Your task to perform on an android device: Open accessibility settings Image 0: 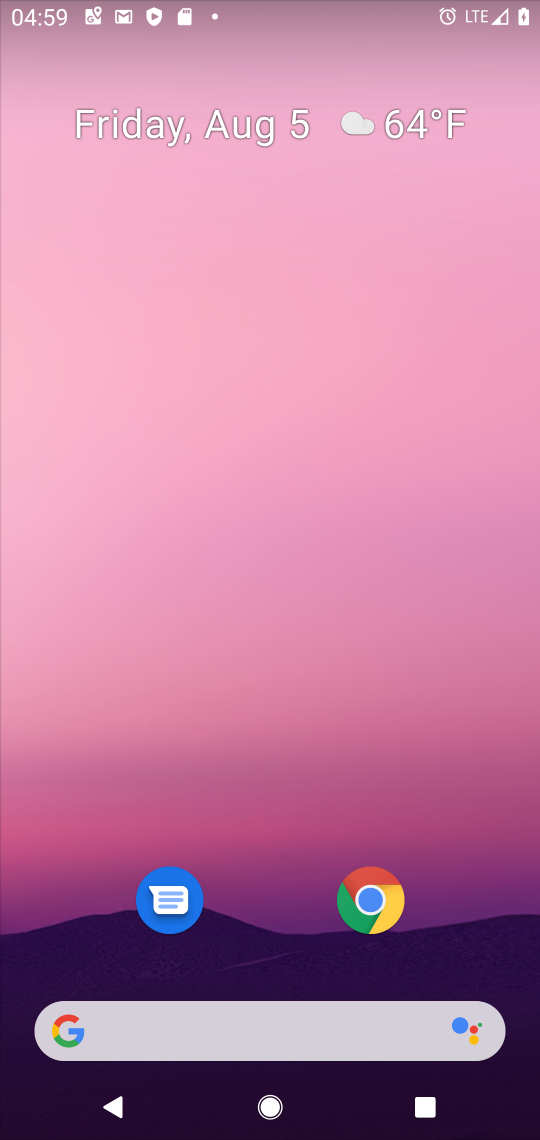
Step 0: drag from (326, 836) to (354, 100)
Your task to perform on an android device: Open accessibility settings Image 1: 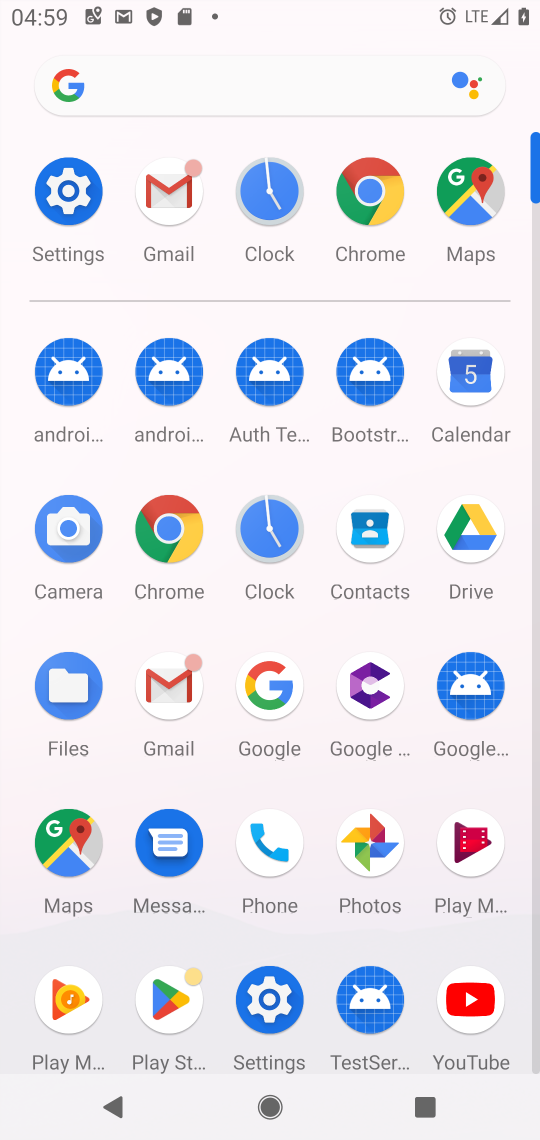
Step 1: click (78, 187)
Your task to perform on an android device: Open accessibility settings Image 2: 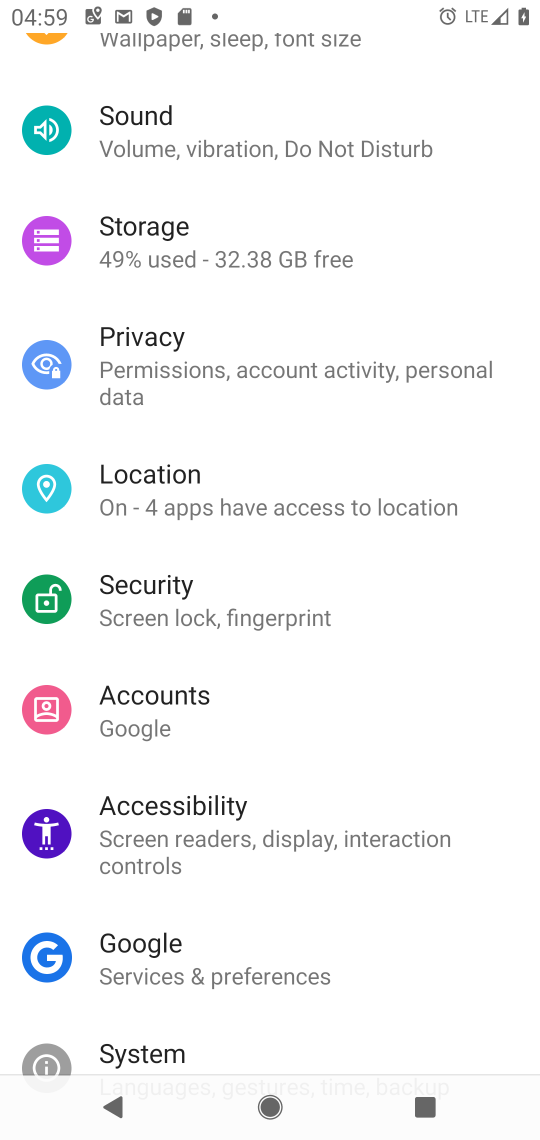
Step 2: click (243, 254)
Your task to perform on an android device: Open accessibility settings Image 3: 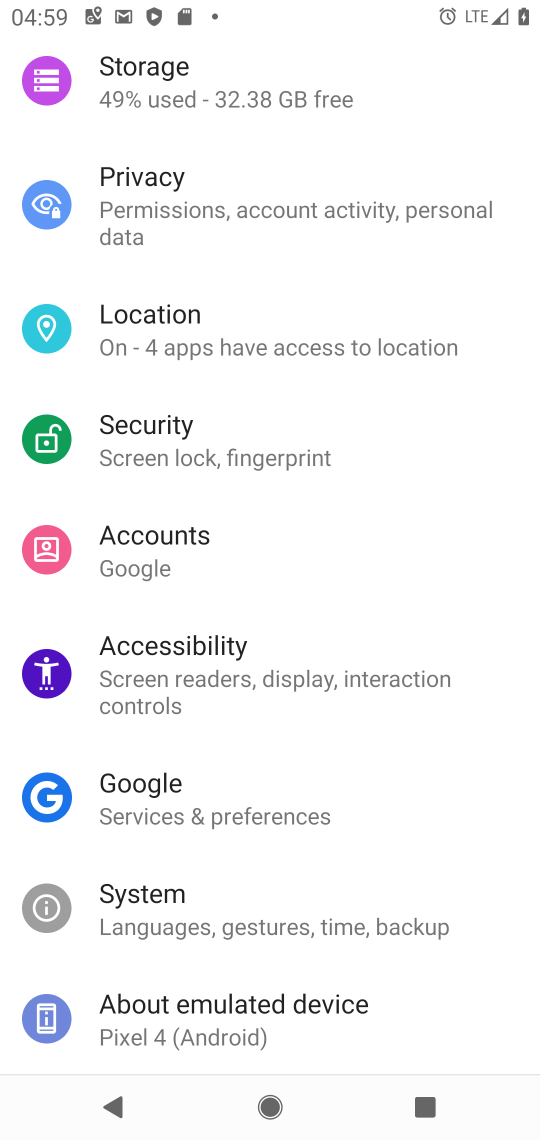
Step 3: click (152, 677)
Your task to perform on an android device: Open accessibility settings Image 4: 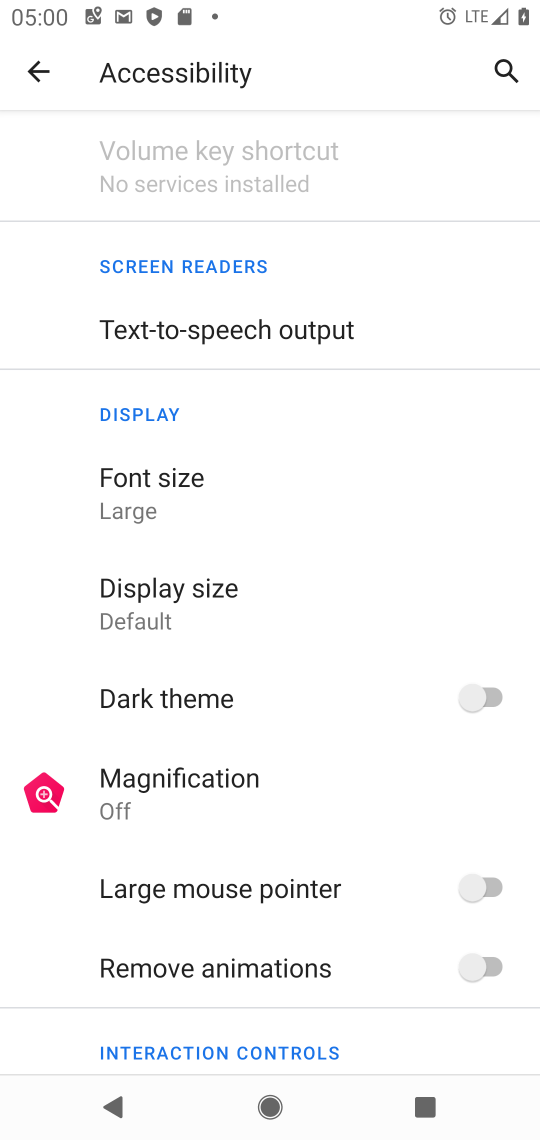
Step 4: task complete